Your task to perform on an android device: manage bookmarks in the chrome app Image 0: 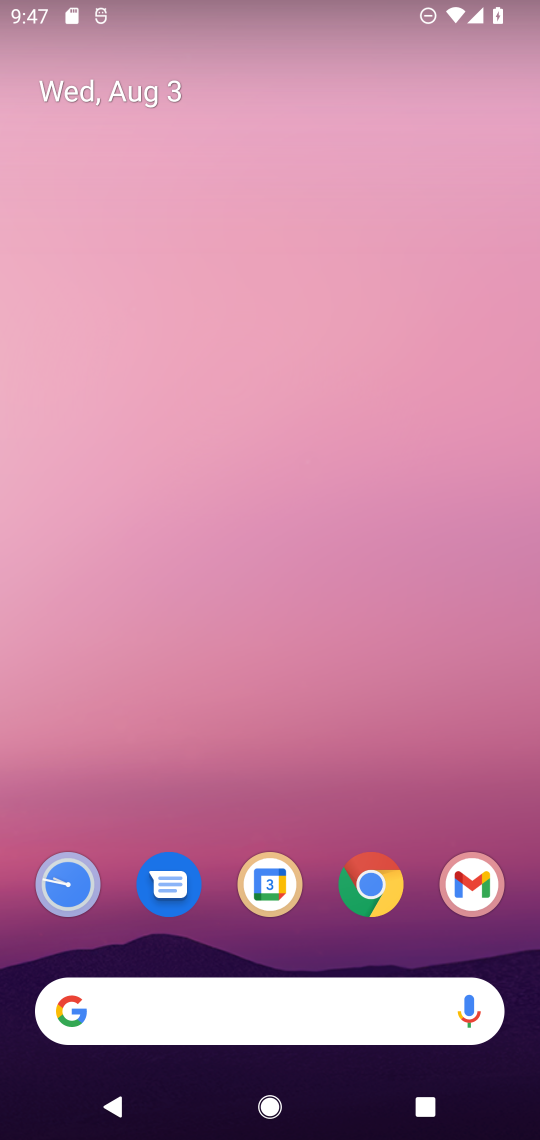
Step 0: click (367, 895)
Your task to perform on an android device: manage bookmarks in the chrome app Image 1: 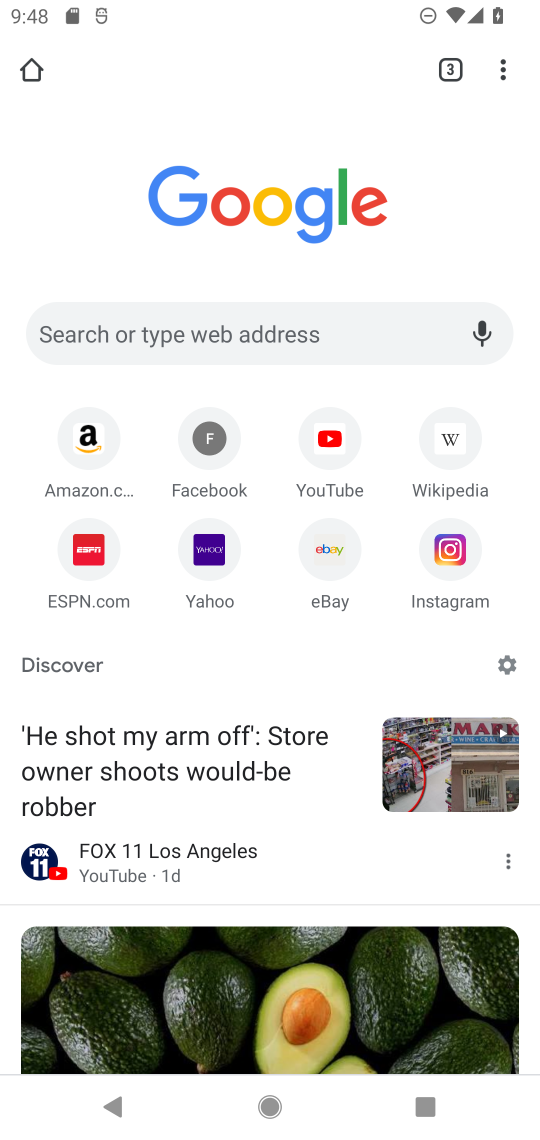
Step 1: click (520, 56)
Your task to perform on an android device: manage bookmarks in the chrome app Image 2: 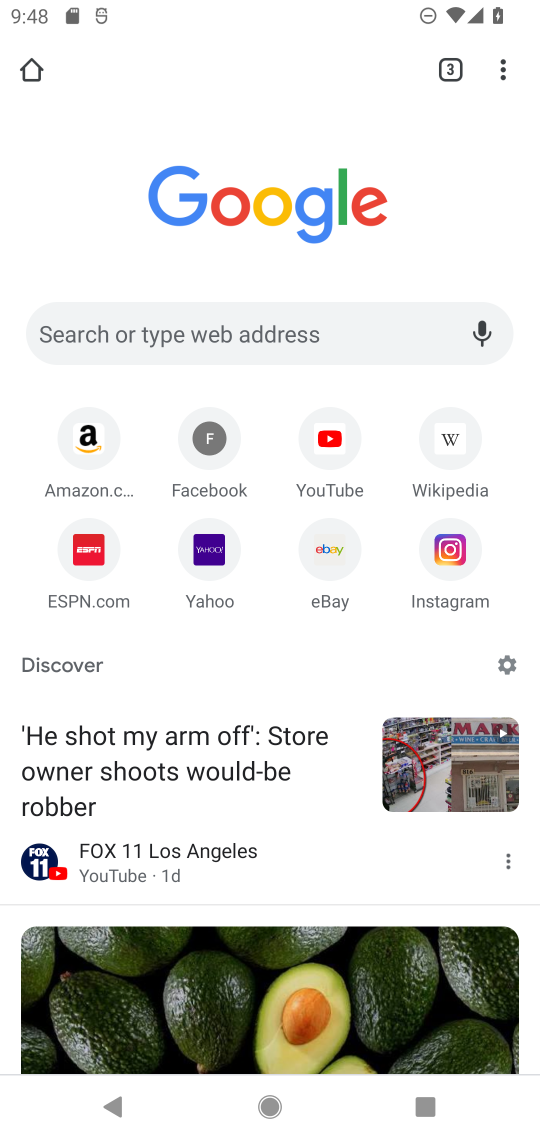
Step 2: click (512, 74)
Your task to perform on an android device: manage bookmarks in the chrome app Image 3: 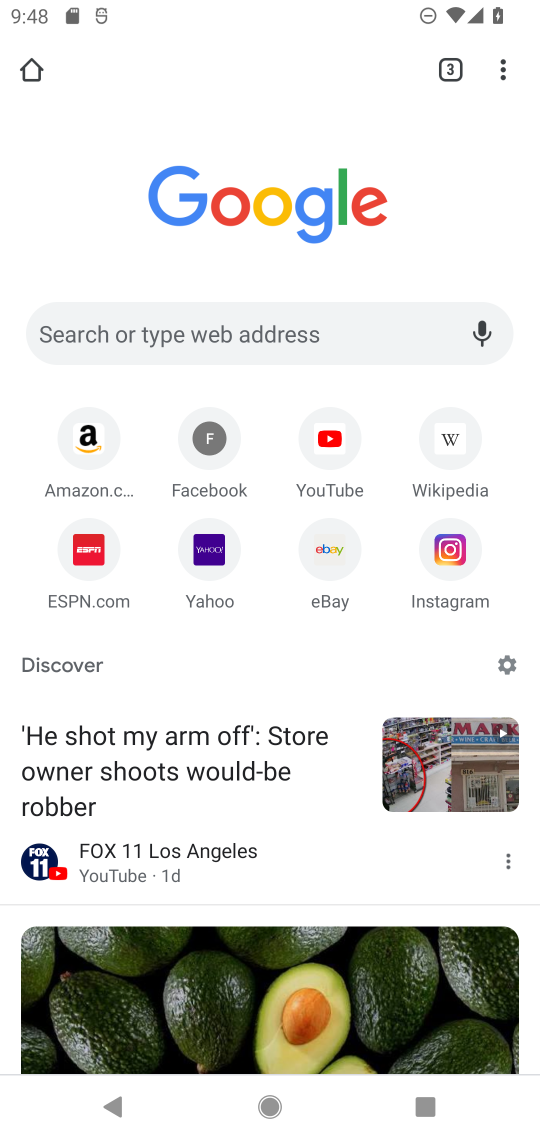
Step 3: click (512, 74)
Your task to perform on an android device: manage bookmarks in the chrome app Image 4: 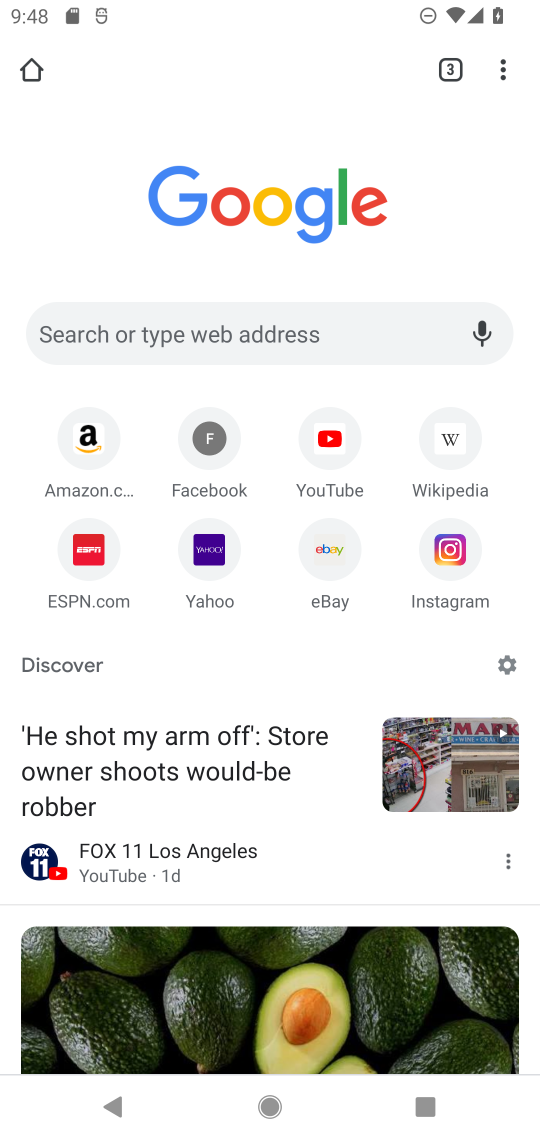
Step 4: click (498, 69)
Your task to perform on an android device: manage bookmarks in the chrome app Image 5: 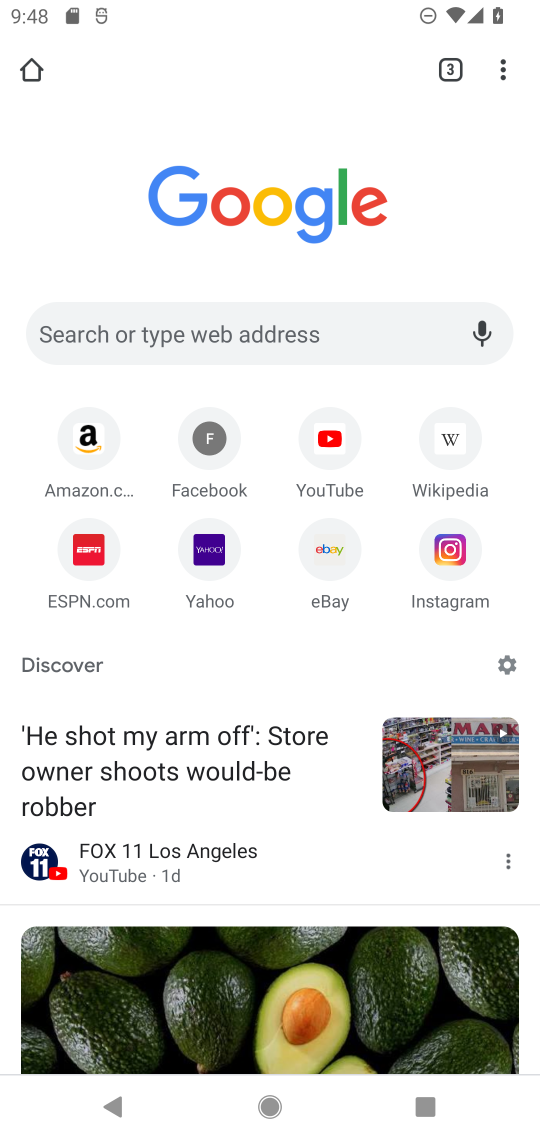
Step 5: click (503, 63)
Your task to perform on an android device: manage bookmarks in the chrome app Image 6: 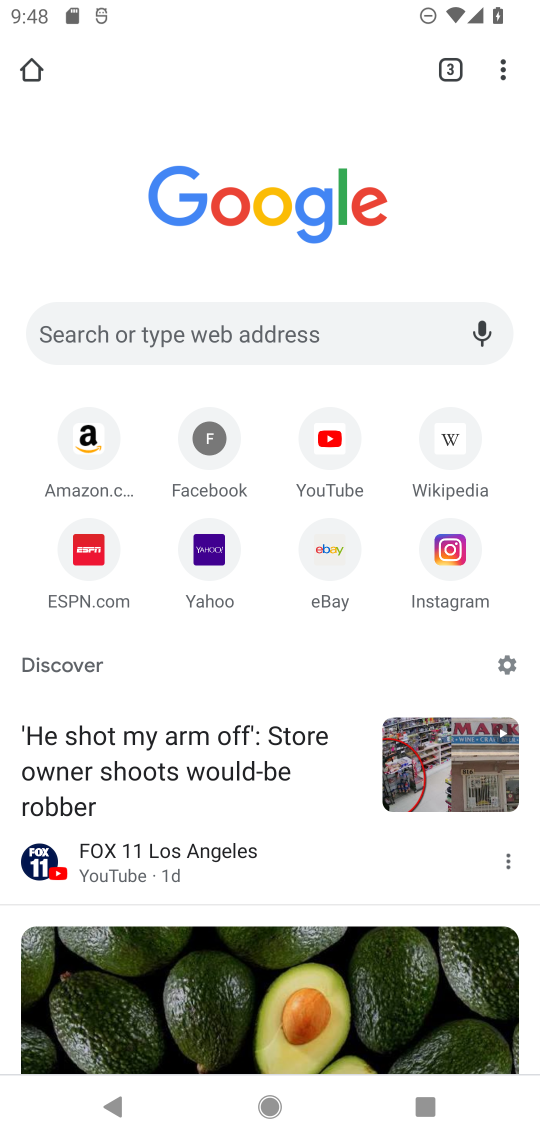
Step 6: click (513, 73)
Your task to perform on an android device: manage bookmarks in the chrome app Image 7: 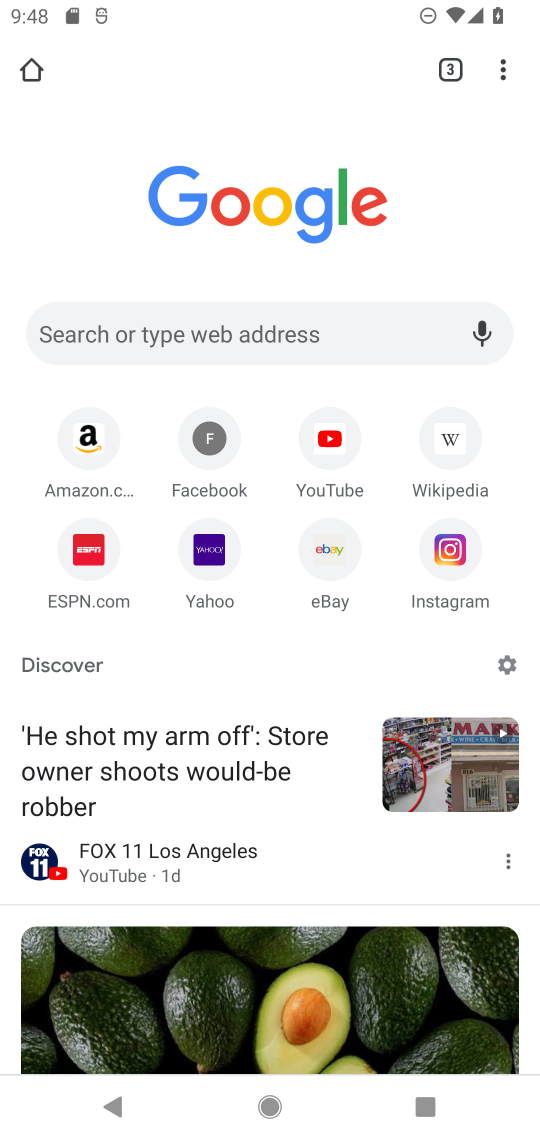
Step 7: task complete